Your task to perform on an android device: Search for sushi restaurants on Maps Image 0: 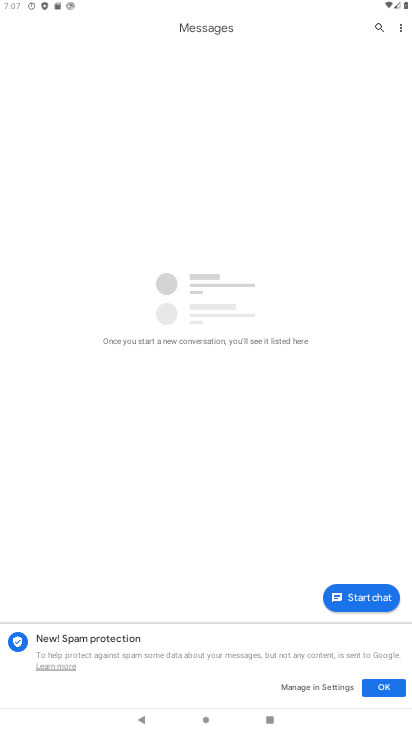
Step 0: press home button
Your task to perform on an android device: Search for sushi restaurants on Maps Image 1: 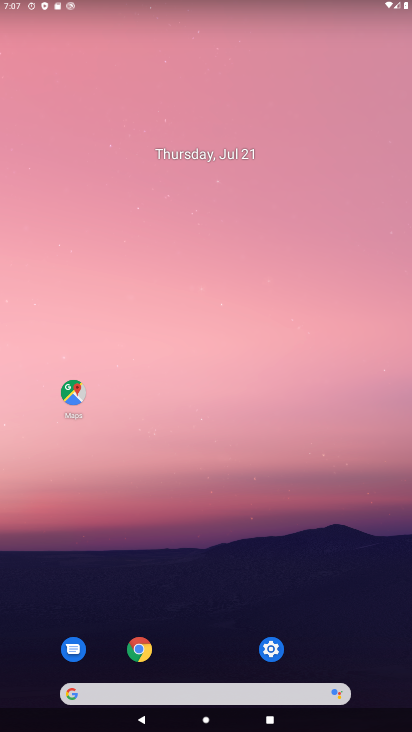
Step 1: click (87, 390)
Your task to perform on an android device: Search for sushi restaurants on Maps Image 2: 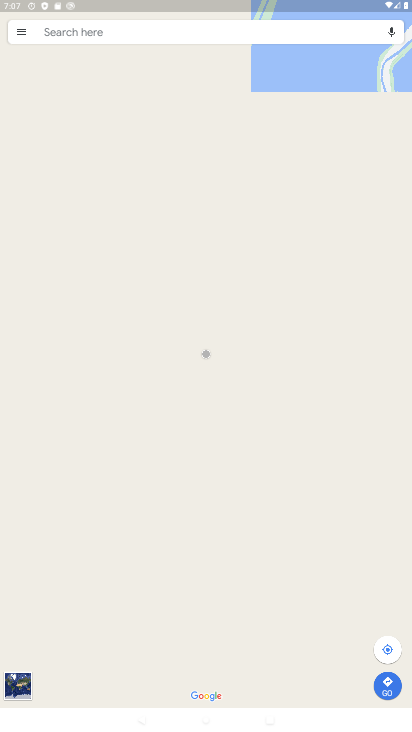
Step 2: click (106, 30)
Your task to perform on an android device: Search for sushi restaurants on Maps Image 3: 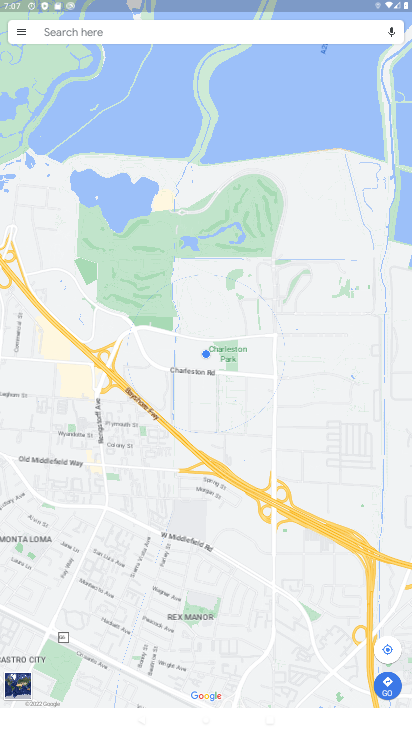
Step 3: click (106, 30)
Your task to perform on an android device: Search for sushi restaurants on Maps Image 4: 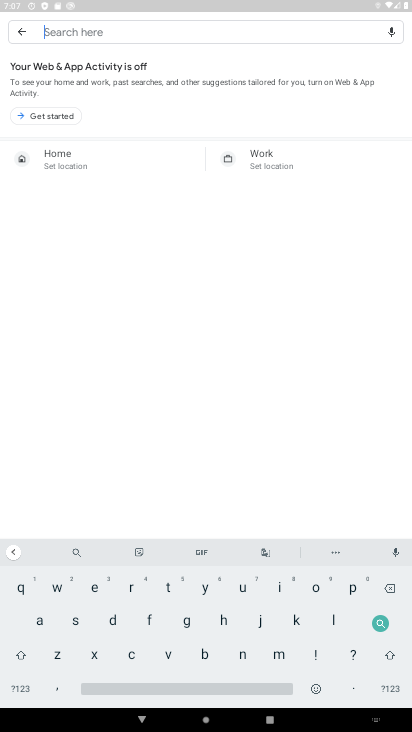
Step 4: click (74, 625)
Your task to perform on an android device: Search for sushi restaurants on Maps Image 5: 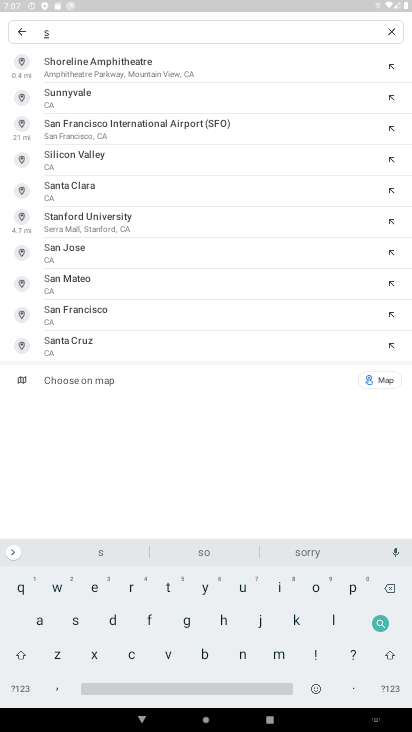
Step 5: click (238, 588)
Your task to perform on an android device: Search for sushi restaurants on Maps Image 6: 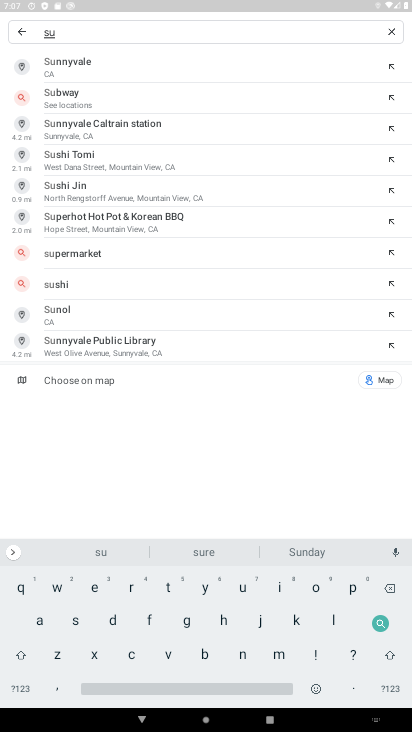
Step 6: click (78, 618)
Your task to perform on an android device: Search for sushi restaurants on Maps Image 7: 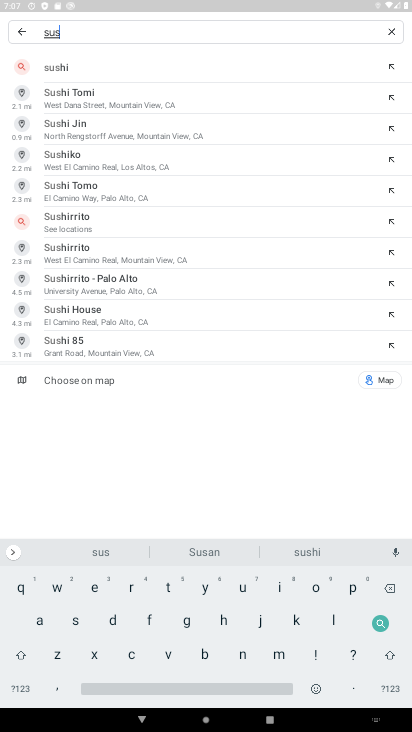
Step 7: click (224, 620)
Your task to perform on an android device: Search for sushi restaurants on Maps Image 8: 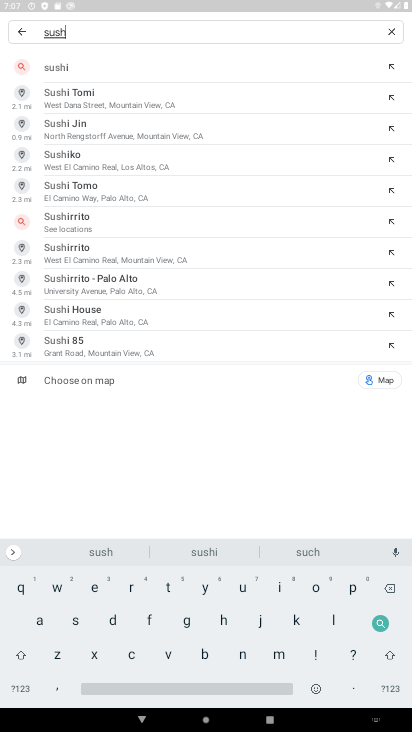
Step 8: click (210, 551)
Your task to perform on an android device: Search for sushi restaurants on Maps Image 9: 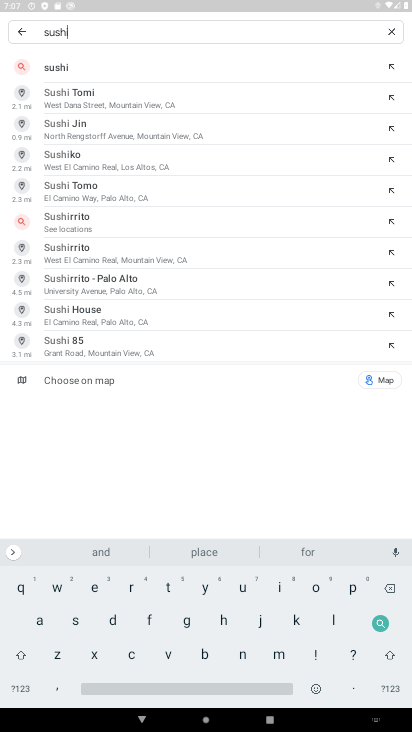
Step 9: click (122, 588)
Your task to perform on an android device: Search for sushi restaurants on Maps Image 10: 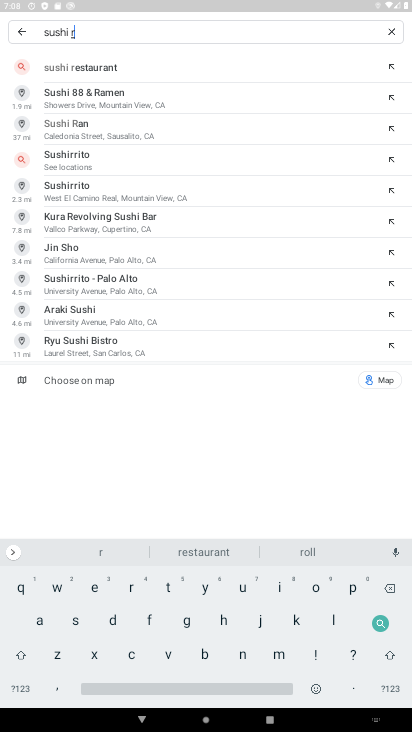
Step 10: click (119, 69)
Your task to perform on an android device: Search for sushi restaurants on Maps Image 11: 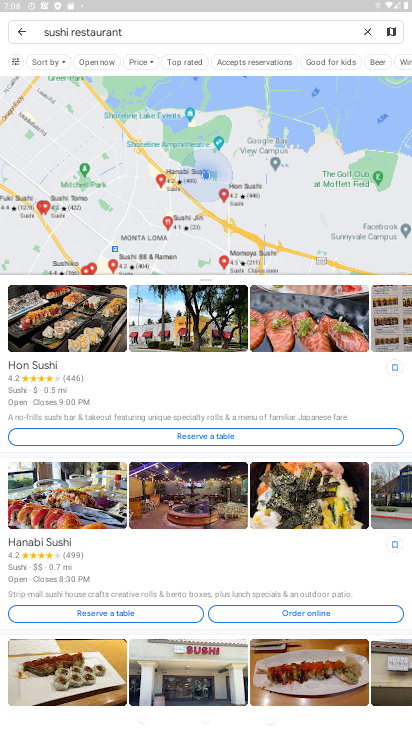
Step 11: task complete